Your task to perform on an android device: change text size in settings app Image 0: 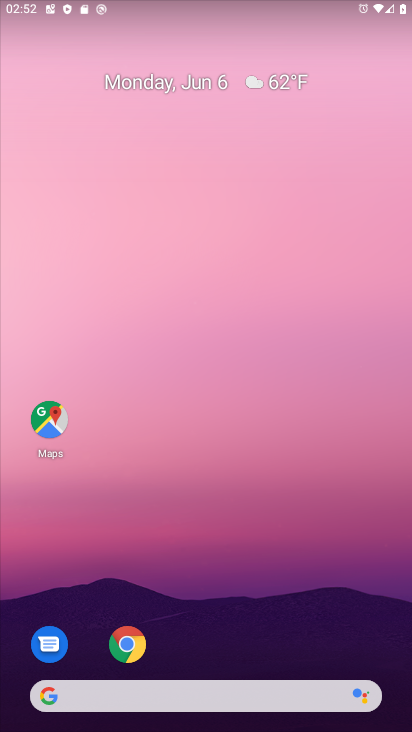
Step 0: drag from (133, 726) to (146, 10)
Your task to perform on an android device: change text size in settings app Image 1: 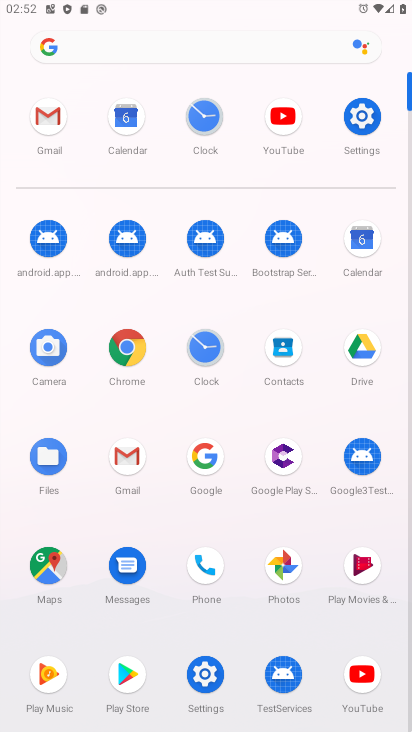
Step 1: click (360, 122)
Your task to perform on an android device: change text size in settings app Image 2: 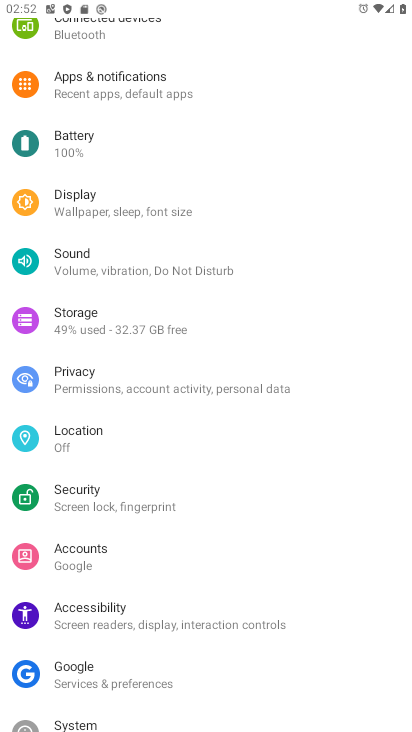
Step 2: drag from (339, 654) to (316, 437)
Your task to perform on an android device: change text size in settings app Image 3: 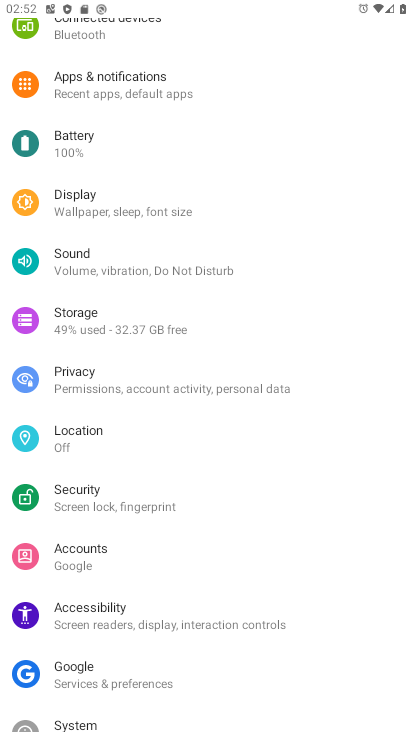
Step 3: drag from (272, 657) to (268, 340)
Your task to perform on an android device: change text size in settings app Image 4: 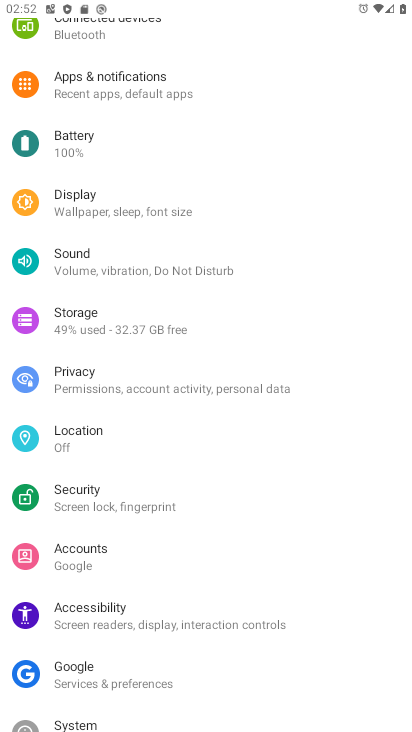
Step 4: drag from (277, 696) to (274, 343)
Your task to perform on an android device: change text size in settings app Image 5: 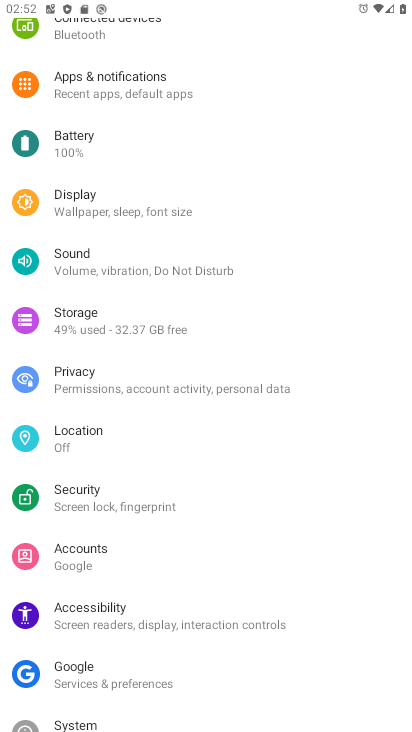
Step 5: drag from (252, 698) to (246, 353)
Your task to perform on an android device: change text size in settings app Image 6: 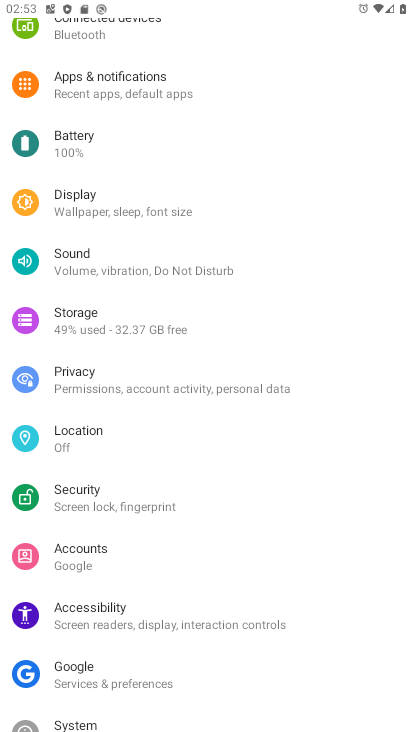
Step 6: drag from (299, 686) to (289, 297)
Your task to perform on an android device: change text size in settings app Image 7: 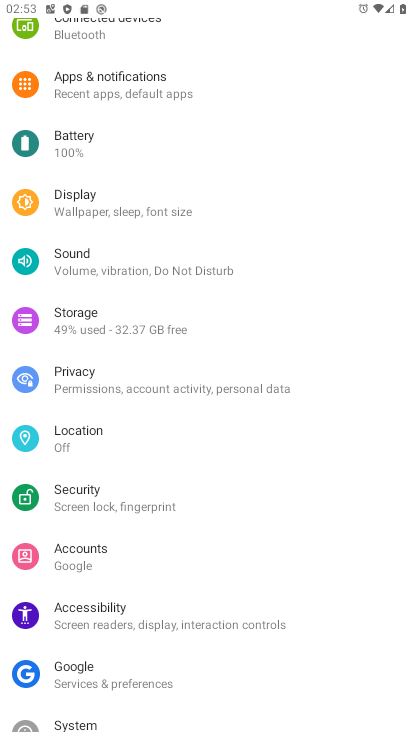
Step 7: drag from (275, 681) to (286, 338)
Your task to perform on an android device: change text size in settings app Image 8: 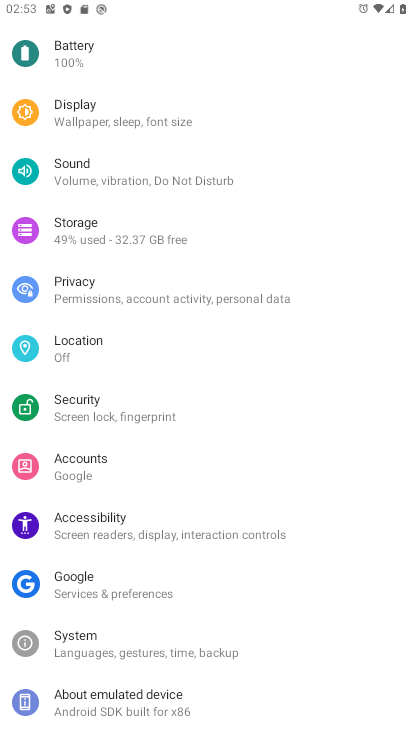
Step 8: drag from (271, 104) to (275, 195)
Your task to perform on an android device: change text size in settings app Image 9: 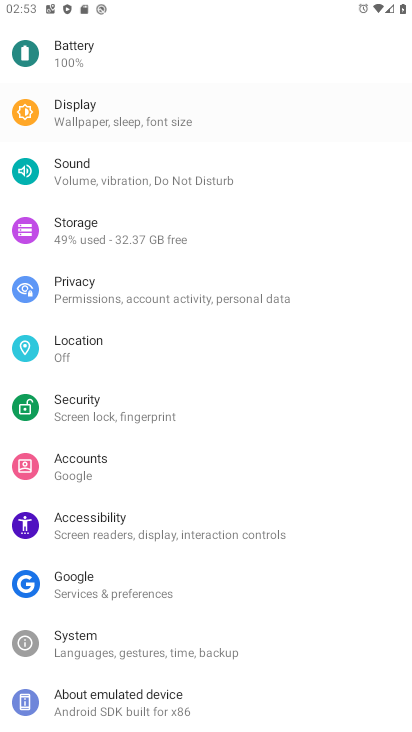
Step 9: click (171, 124)
Your task to perform on an android device: change text size in settings app Image 10: 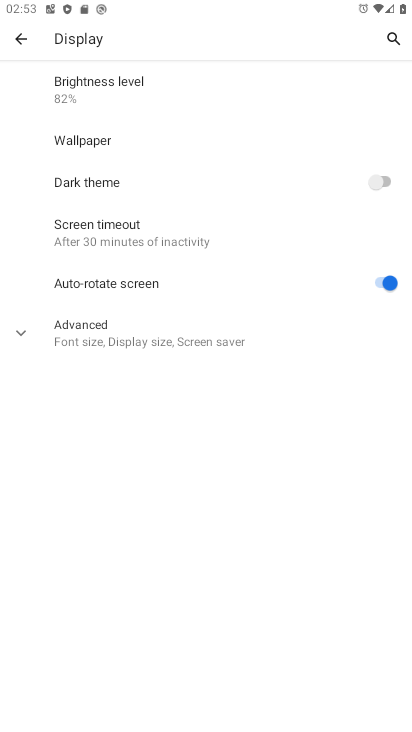
Step 10: click (118, 354)
Your task to perform on an android device: change text size in settings app Image 11: 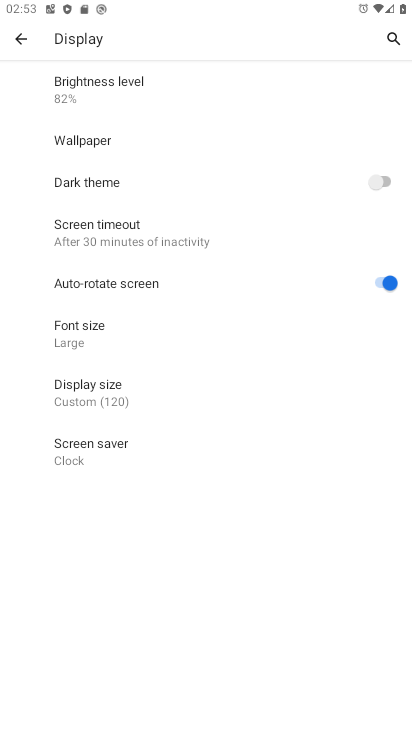
Step 11: click (82, 334)
Your task to perform on an android device: change text size in settings app Image 12: 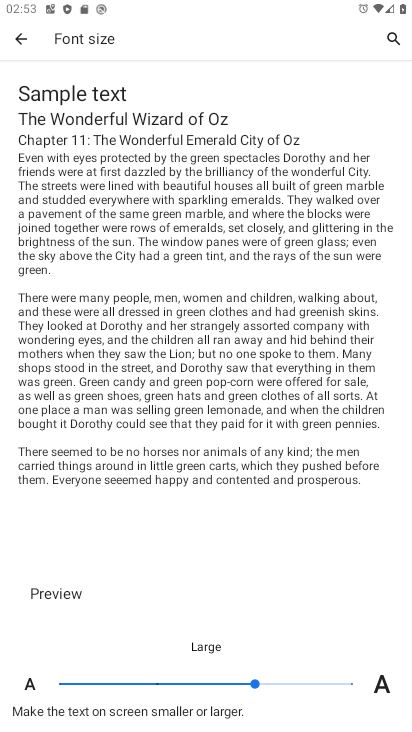
Step 12: task complete